Your task to perform on an android device: Open the phone app and click the voicemail tab. Image 0: 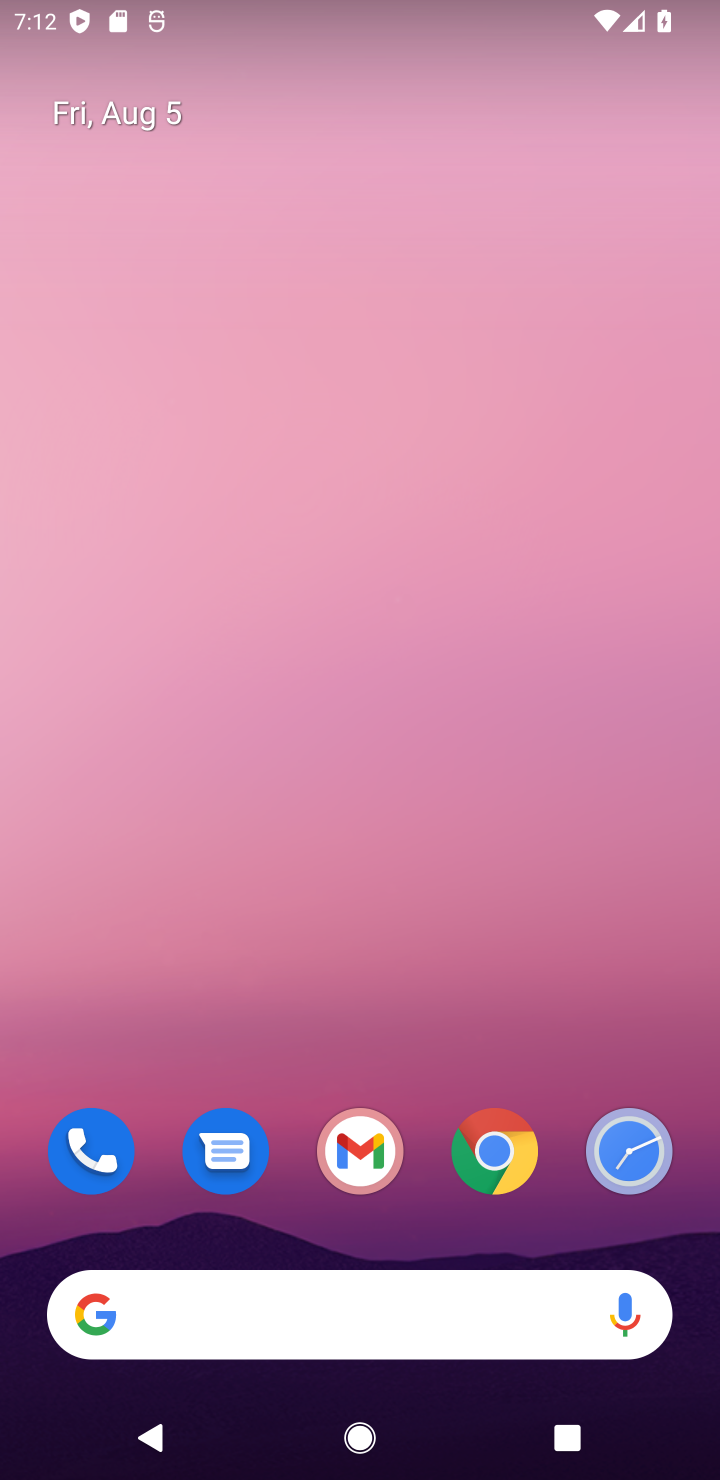
Step 0: click (85, 1142)
Your task to perform on an android device: Open the phone app and click the voicemail tab. Image 1: 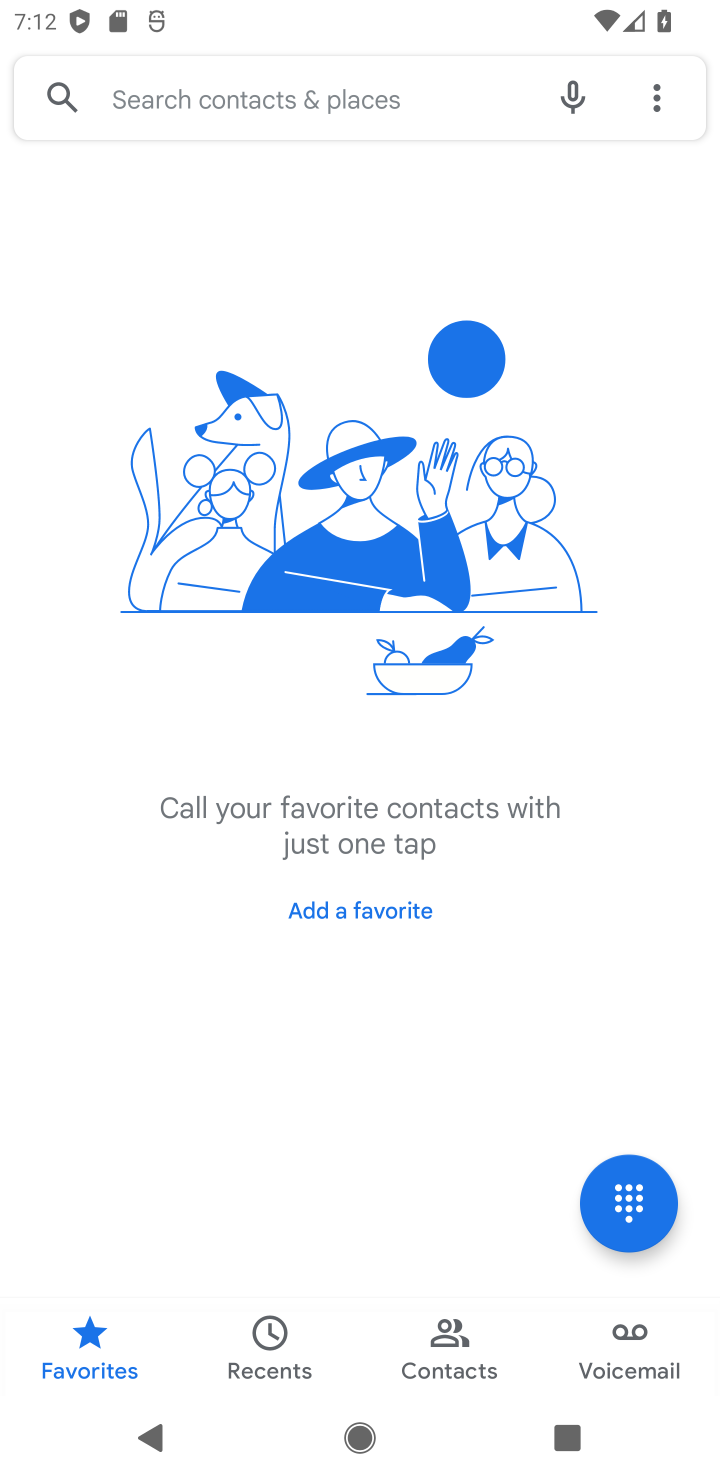
Step 1: click (634, 1335)
Your task to perform on an android device: Open the phone app and click the voicemail tab. Image 2: 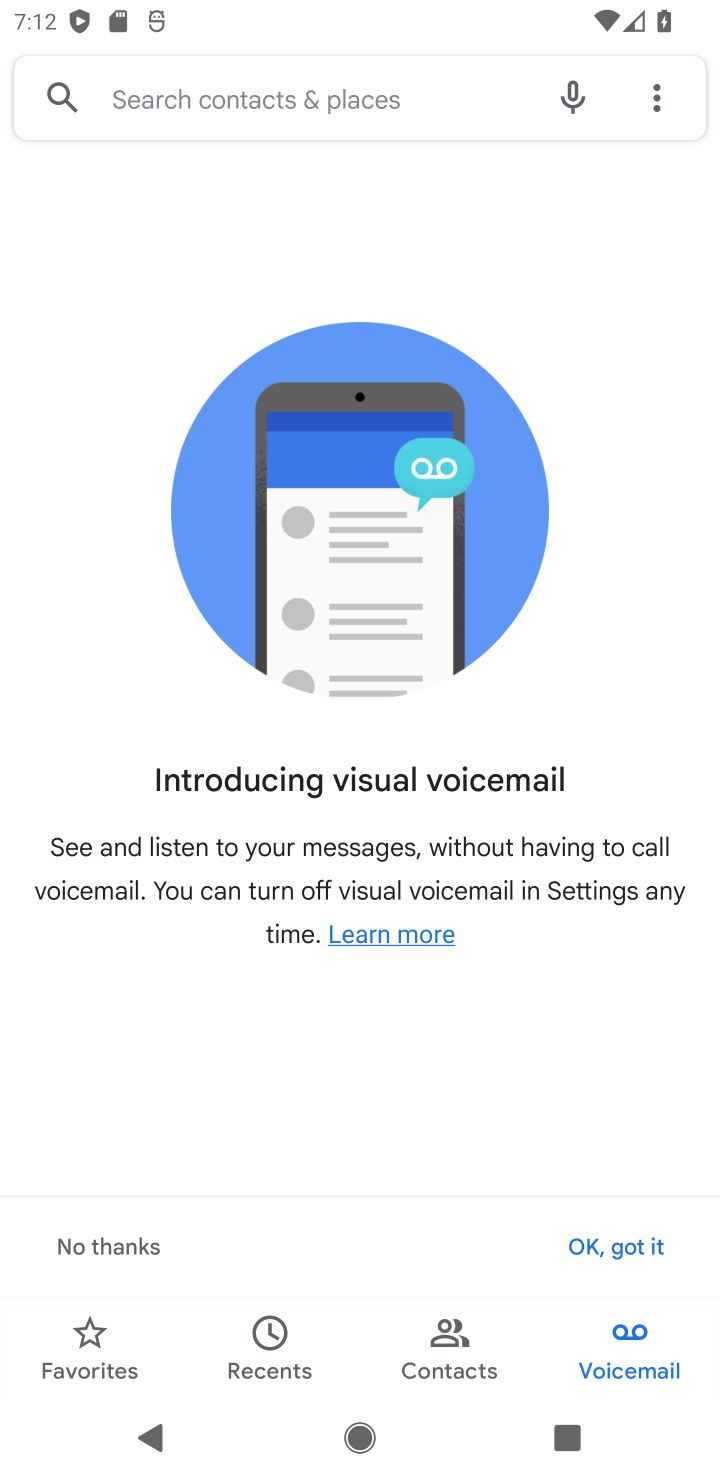
Step 2: task complete